Your task to perform on an android device: Check the news Image 0: 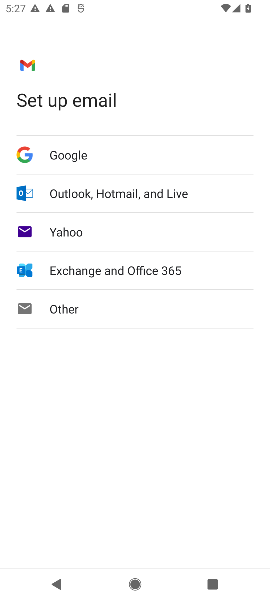
Step 0: press home button
Your task to perform on an android device: Check the news Image 1: 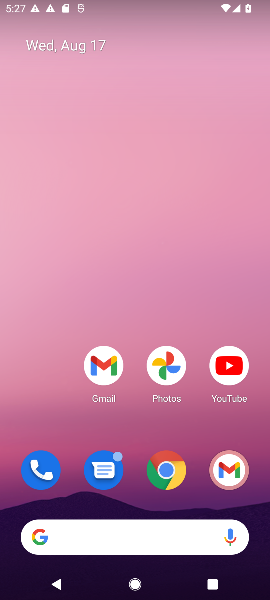
Step 1: drag from (131, 483) to (137, 6)
Your task to perform on an android device: Check the news Image 2: 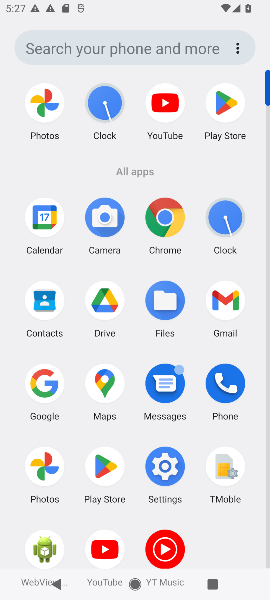
Step 2: click (43, 378)
Your task to perform on an android device: Check the news Image 3: 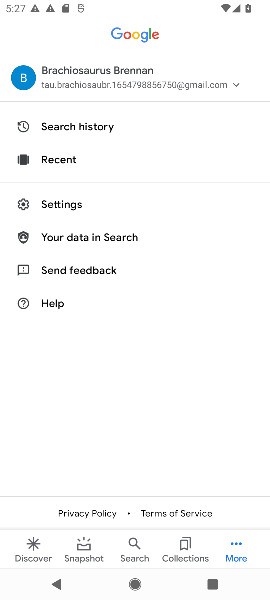
Step 3: click (33, 537)
Your task to perform on an android device: Check the news Image 4: 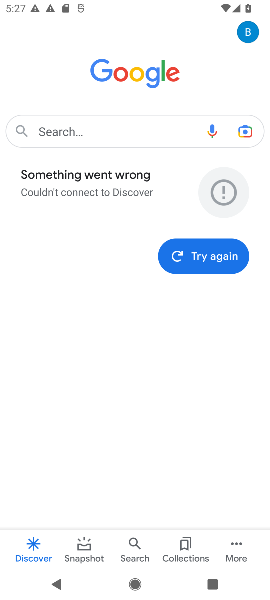
Step 4: click (151, 133)
Your task to perform on an android device: Check the news Image 5: 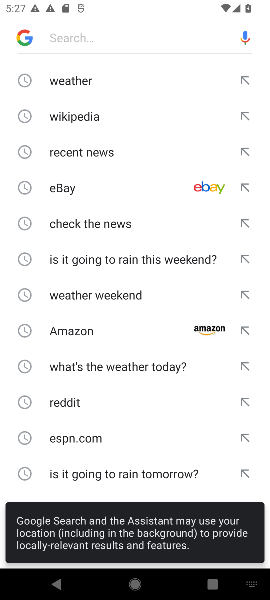
Step 5: type "news"
Your task to perform on an android device: Check the news Image 6: 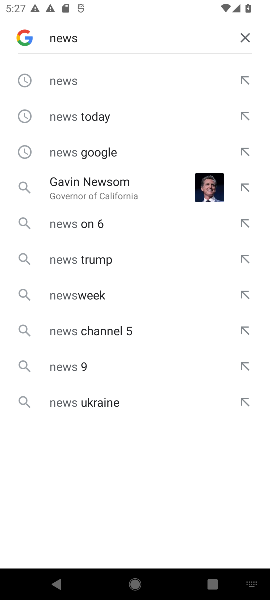
Step 6: click (84, 85)
Your task to perform on an android device: Check the news Image 7: 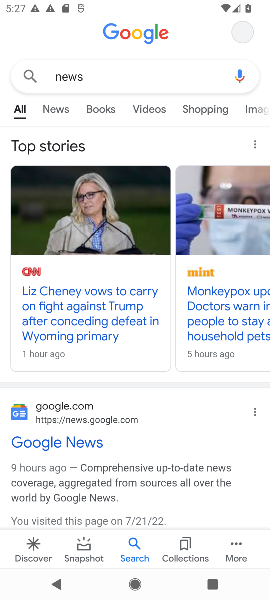
Step 7: task complete